Your task to perform on an android device: search for starred emails in the gmail app Image 0: 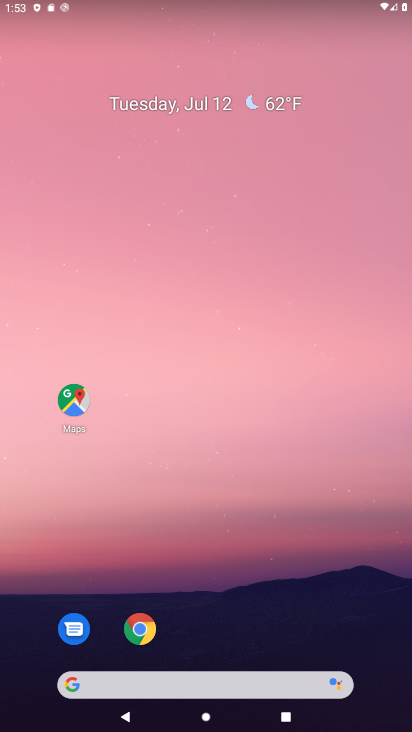
Step 0: drag from (206, 650) to (214, 19)
Your task to perform on an android device: search for starred emails in the gmail app Image 1: 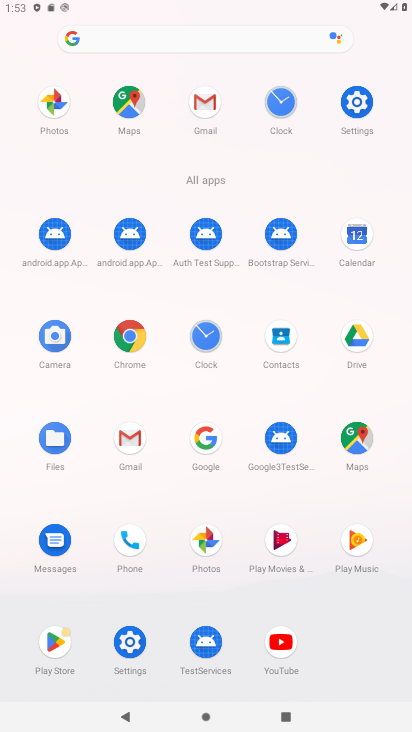
Step 1: click (201, 97)
Your task to perform on an android device: search for starred emails in the gmail app Image 2: 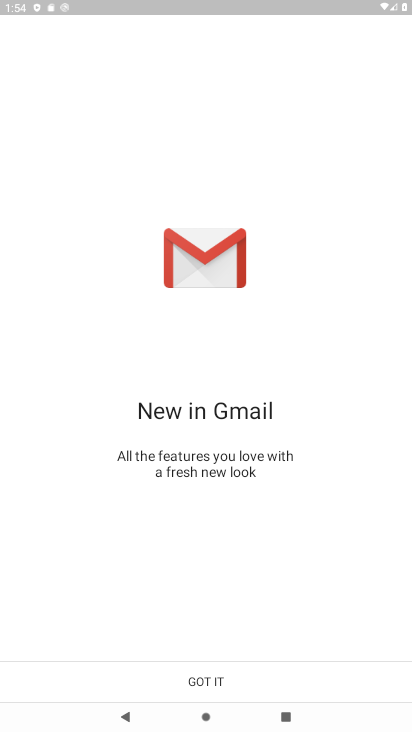
Step 2: click (205, 682)
Your task to perform on an android device: search for starred emails in the gmail app Image 3: 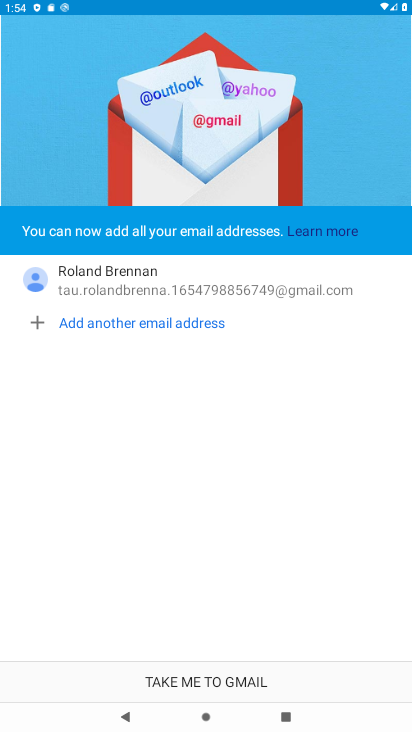
Step 3: click (206, 683)
Your task to perform on an android device: search for starred emails in the gmail app Image 4: 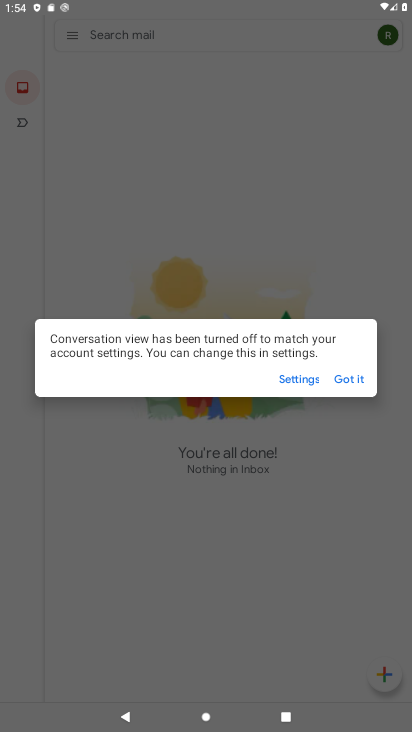
Step 4: click (352, 382)
Your task to perform on an android device: search for starred emails in the gmail app Image 5: 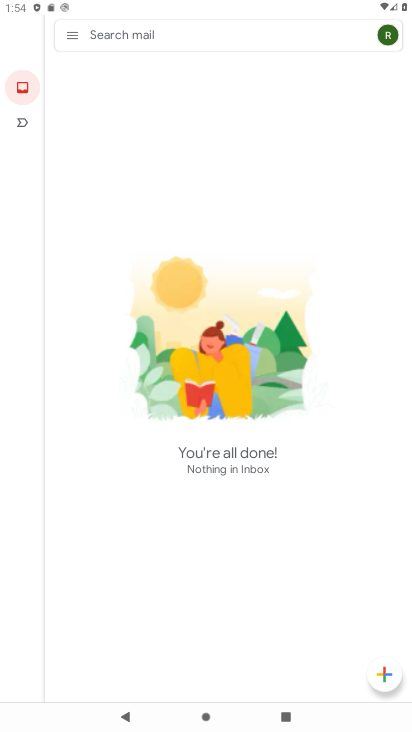
Step 5: click (73, 34)
Your task to perform on an android device: search for starred emails in the gmail app Image 6: 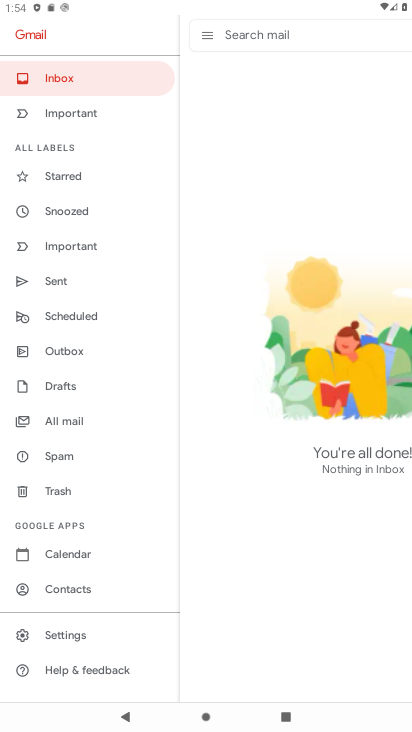
Step 6: click (87, 172)
Your task to perform on an android device: search for starred emails in the gmail app Image 7: 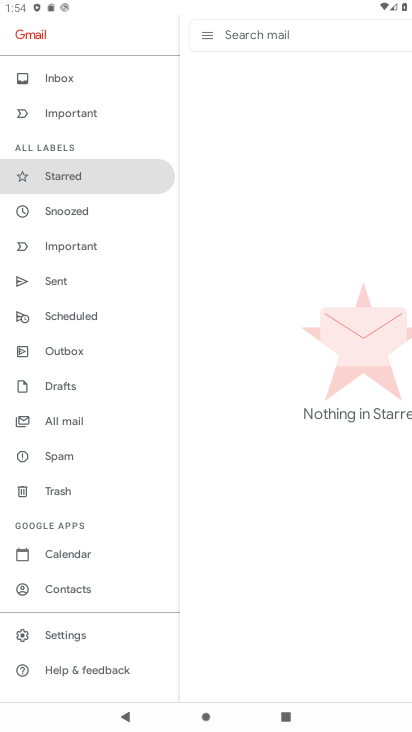
Step 7: task complete